Your task to perform on an android device: turn on sleep mode Image 0: 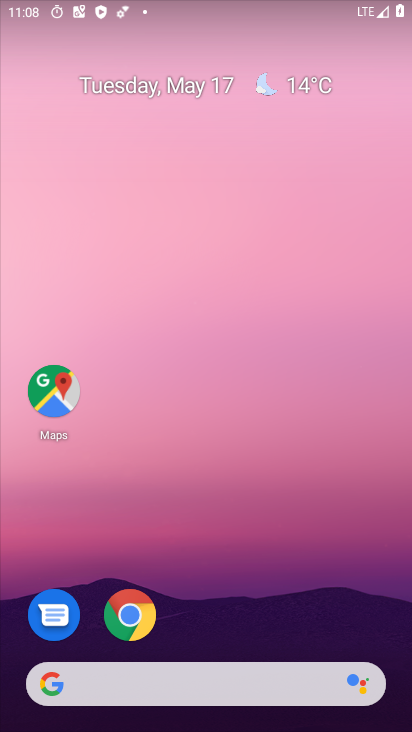
Step 0: press home button
Your task to perform on an android device: turn on sleep mode Image 1: 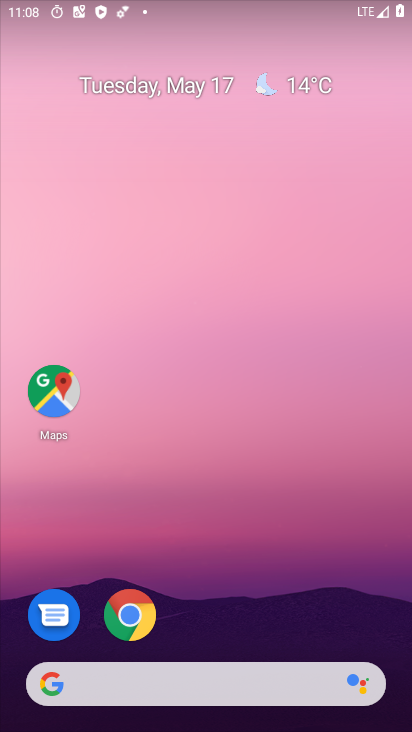
Step 1: drag from (147, 676) to (328, 76)
Your task to perform on an android device: turn on sleep mode Image 2: 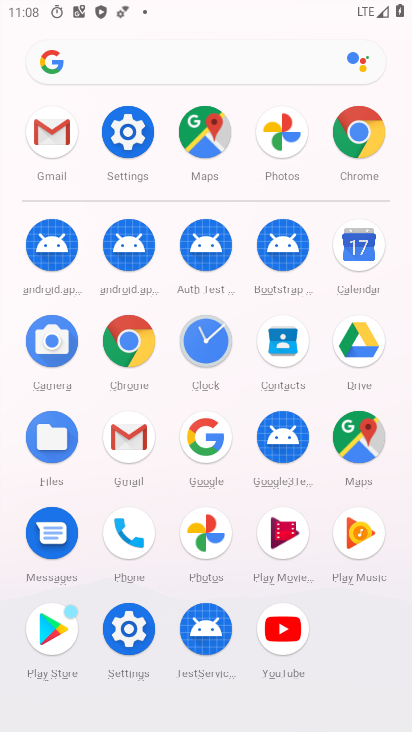
Step 2: click (131, 145)
Your task to perform on an android device: turn on sleep mode Image 3: 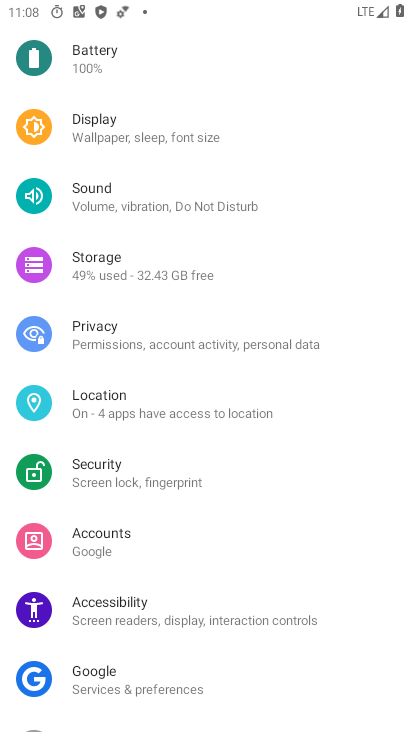
Step 3: click (138, 133)
Your task to perform on an android device: turn on sleep mode Image 4: 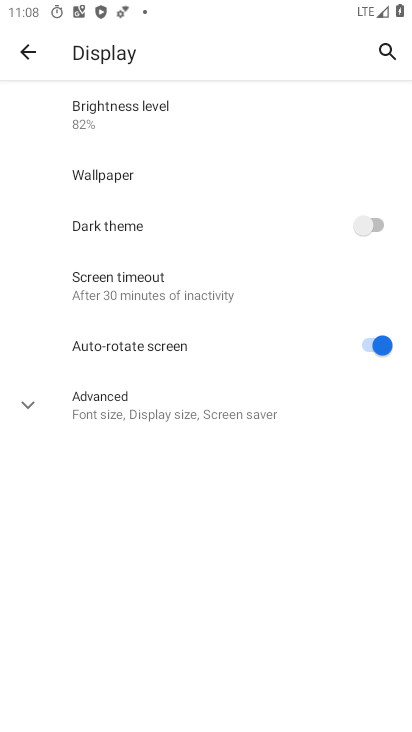
Step 4: task complete